Your task to perform on an android device: Open the map Image 0: 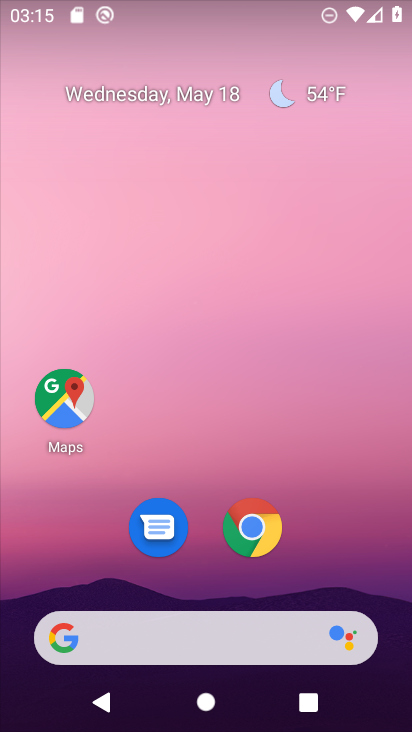
Step 0: drag from (214, 596) to (182, 3)
Your task to perform on an android device: Open the map Image 1: 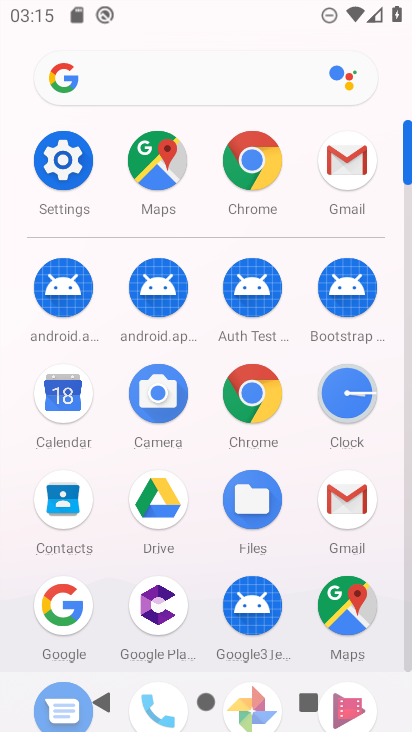
Step 1: click (362, 610)
Your task to perform on an android device: Open the map Image 2: 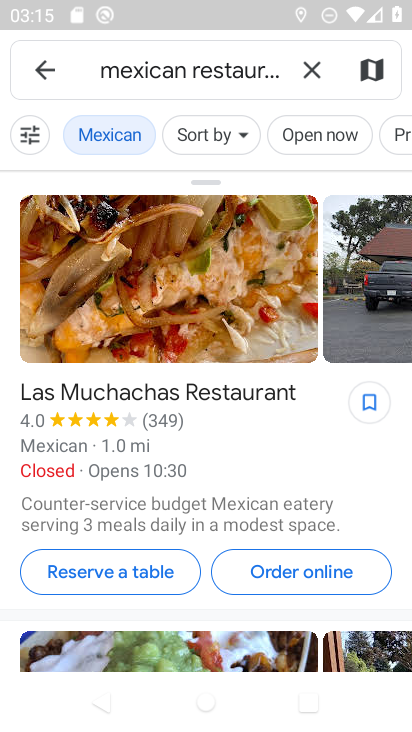
Step 2: click (39, 78)
Your task to perform on an android device: Open the map Image 3: 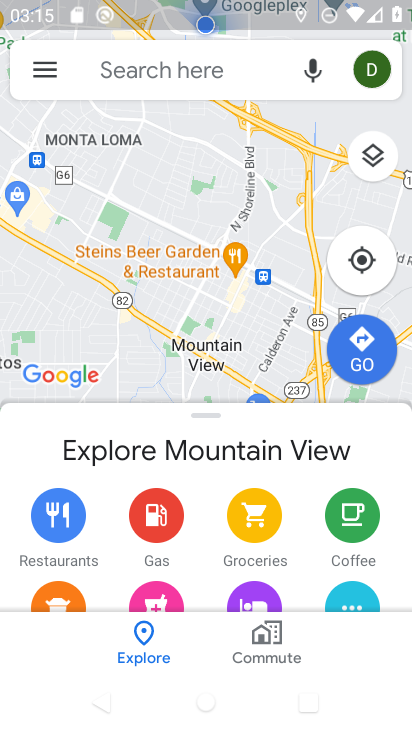
Step 3: task complete